Your task to perform on an android device: Search for seafood restaurants on Google Maps Image 0: 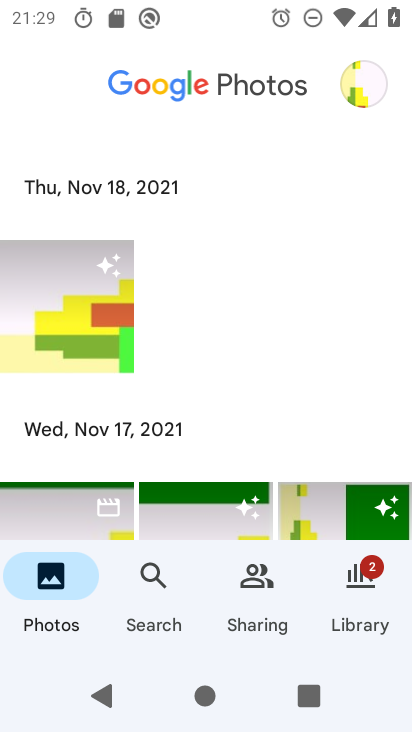
Step 0: press back button
Your task to perform on an android device: Search for seafood restaurants on Google Maps Image 1: 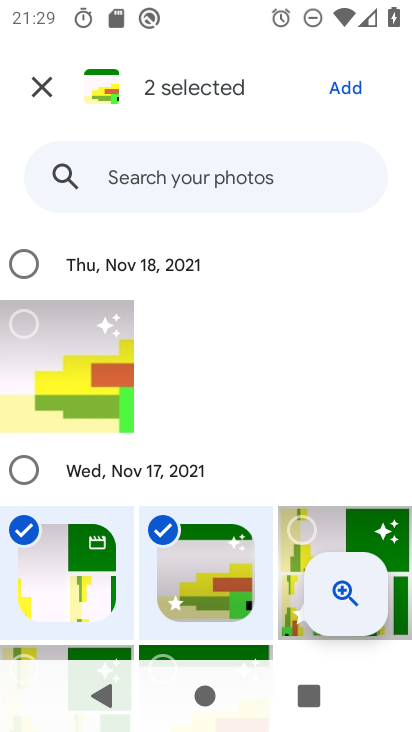
Step 1: press home button
Your task to perform on an android device: Search for seafood restaurants on Google Maps Image 2: 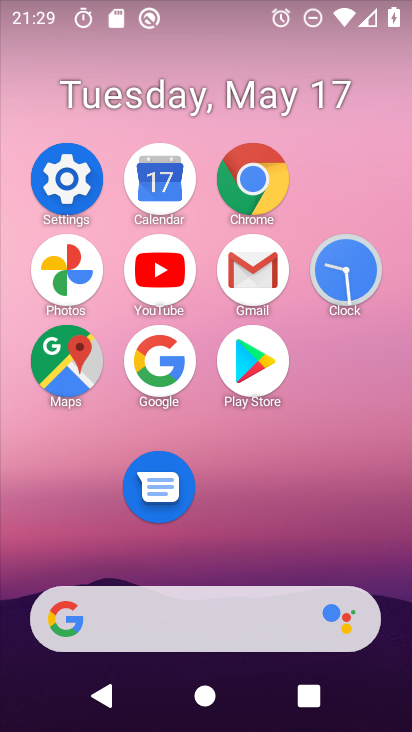
Step 2: click (90, 346)
Your task to perform on an android device: Search for seafood restaurants on Google Maps Image 3: 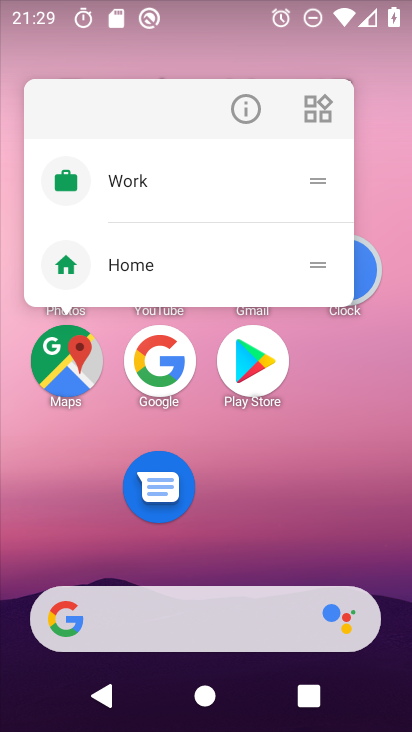
Step 3: click (65, 342)
Your task to perform on an android device: Search for seafood restaurants on Google Maps Image 4: 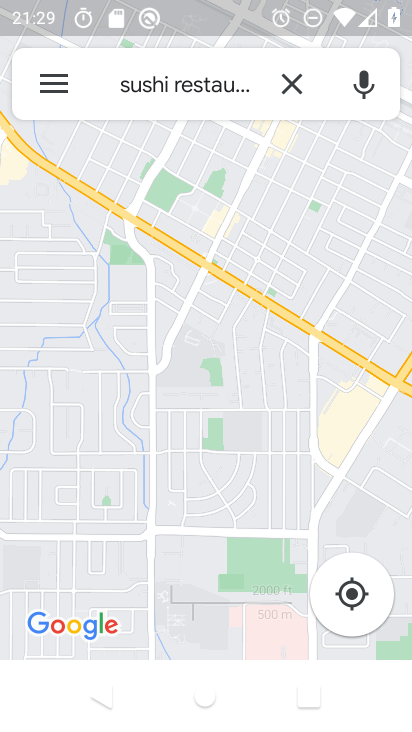
Step 4: click (290, 83)
Your task to perform on an android device: Search for seafood restaurants on Google Maps Image 5: 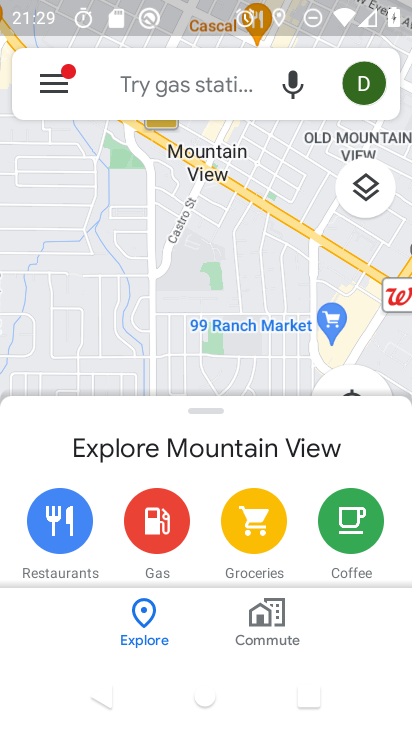
Step 5: click (214, 88)
Your task to perform on an android device: Search for seafood restaurants on Google Maps Image 6: 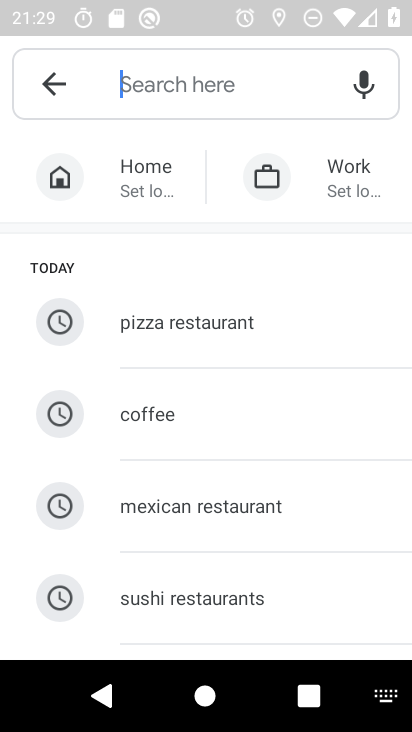
Step 6: drag from (172, 583) to (222, 244)
Your task to perform on an android device: Search for seafood restaurants on Google Maps Image 7: 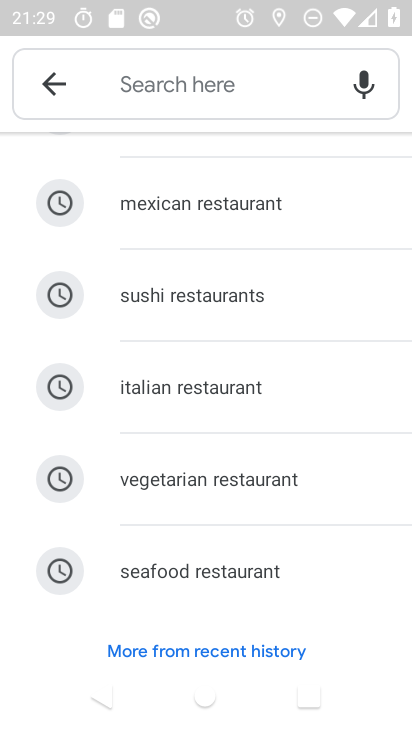
Step 7: click (244, 553)
Your task to perform on an android device: Search for seafood restaurants on Google Maps Image 8: 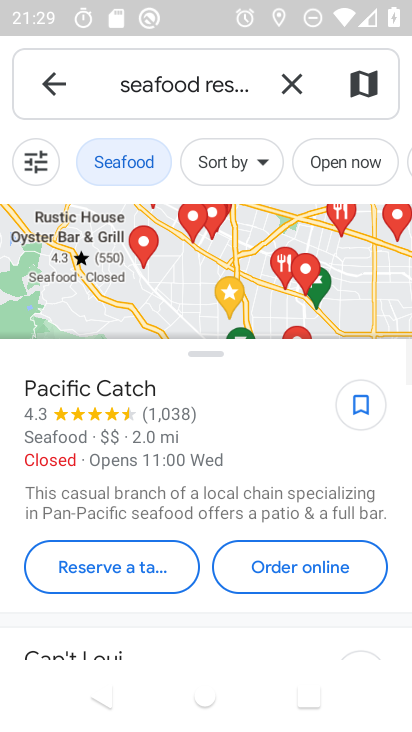
Step 8: task complete